Your task to perform on an android device: change timer sound Image 0: 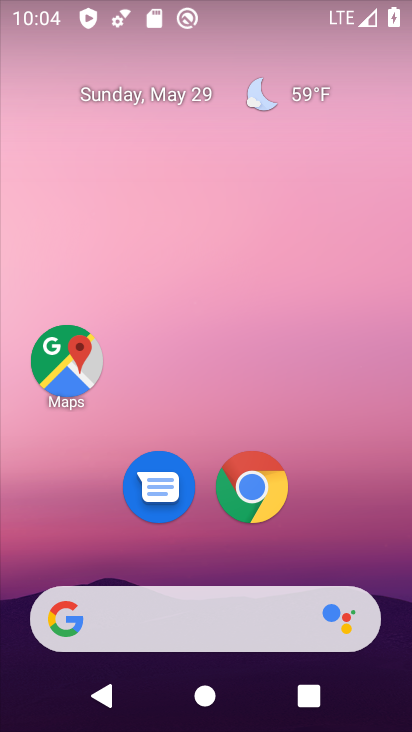
Step 0: drag from (392, 630) to (377, 159)
Your task to perform on an android device: change timer sound Image 1: 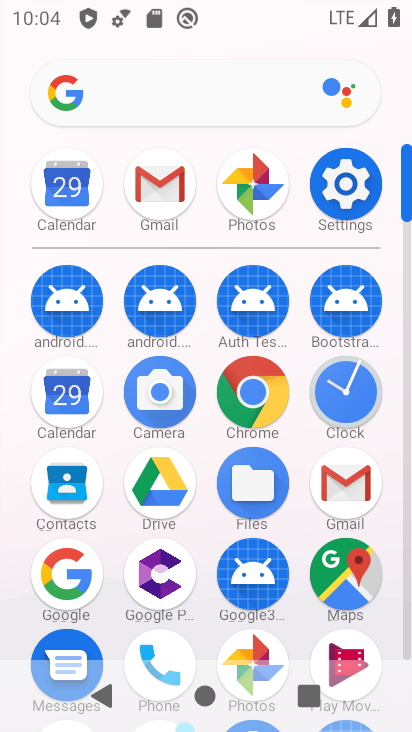
Step 1: click (319, 396)
Your task to perform on an android device: change timer sound Image 2: 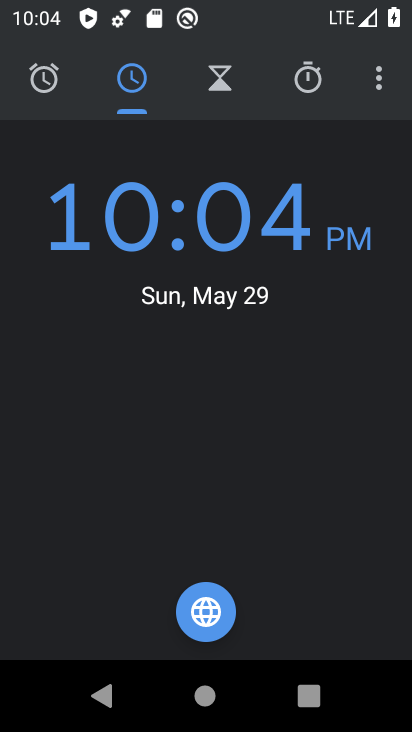
Step 2: click (380, 84)
Your task to perform on an android device: change timer sound Image 3: 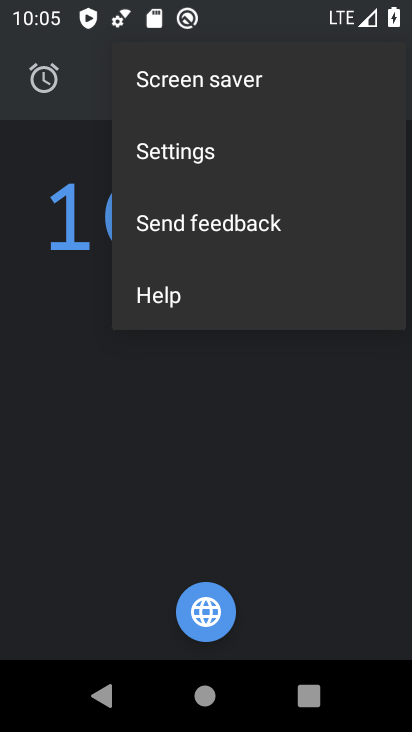
Step 3: click (177, 165)
Your task to perform on an android device: change timer sound Image 4: 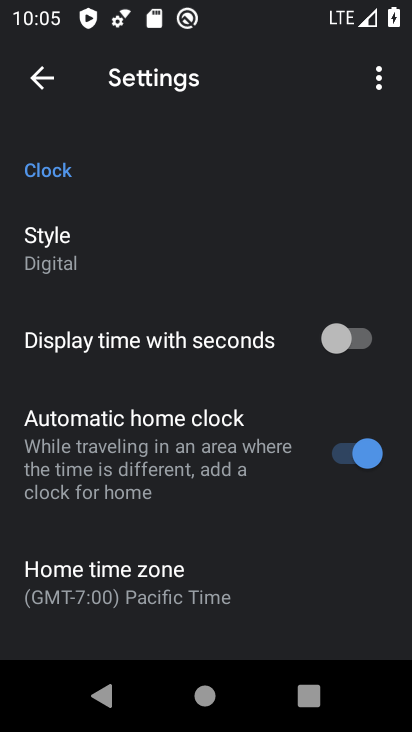
Step 4: drag from (247, 584) to (244, 215)
Your task to perform on an android device: change timer sound Image 5: 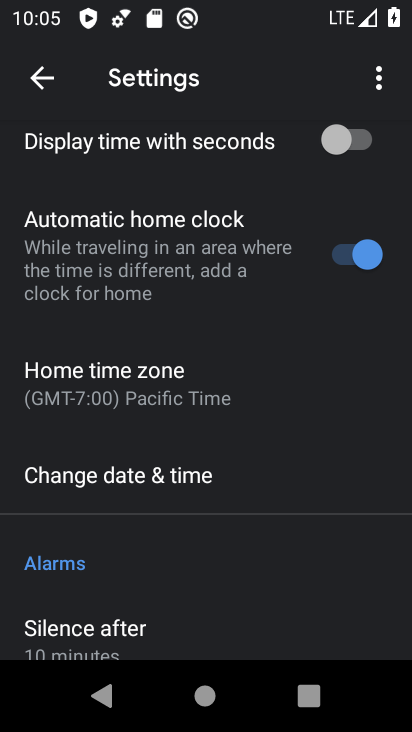
Step 5: drag from (246, 617) to (233, 291)
Your task to perform on an android device: change timer sound Image 6: 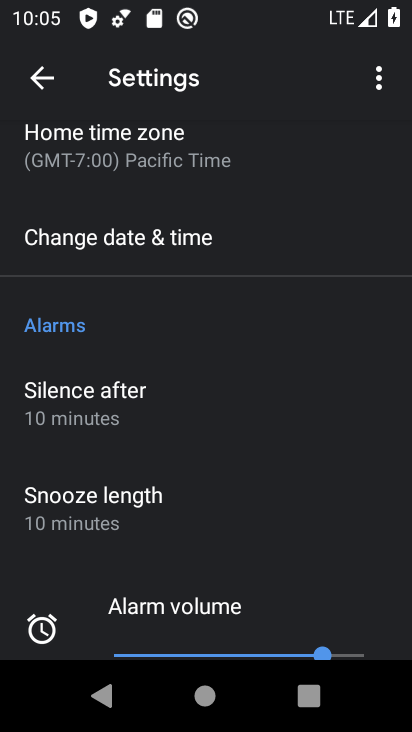
Step 6: drag from (195, 570) to (227, 236)
Your task to perform on an android device: change timer sound Image 7: 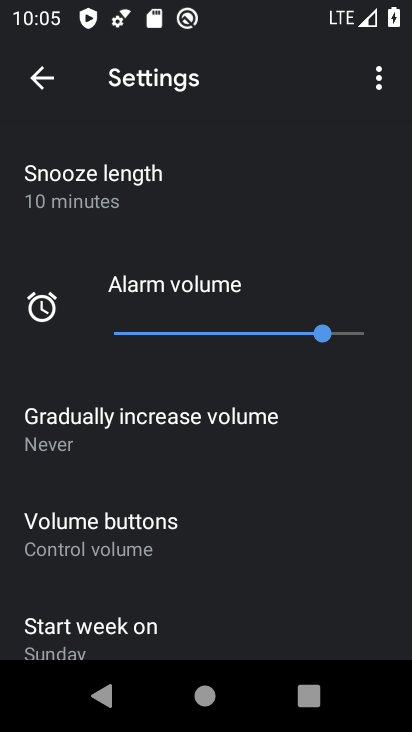
Step 7: drag from (188, 599) to (187, 354)
Your task to perform on an android device: change timer sound Image 8: 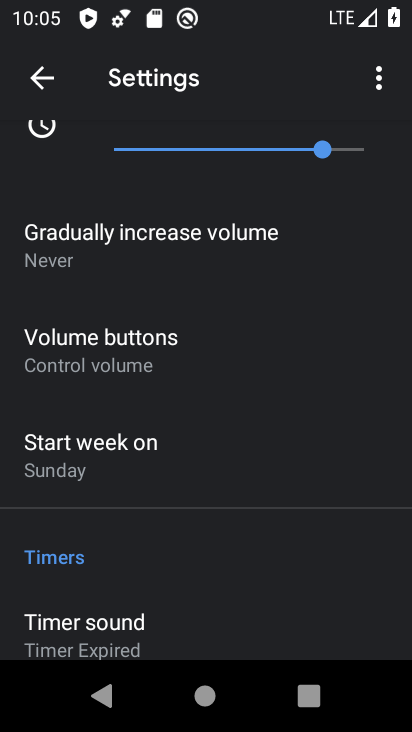
Step 8: click (102, 631)
Your task to perform on an android device: change timer sound Image 9: 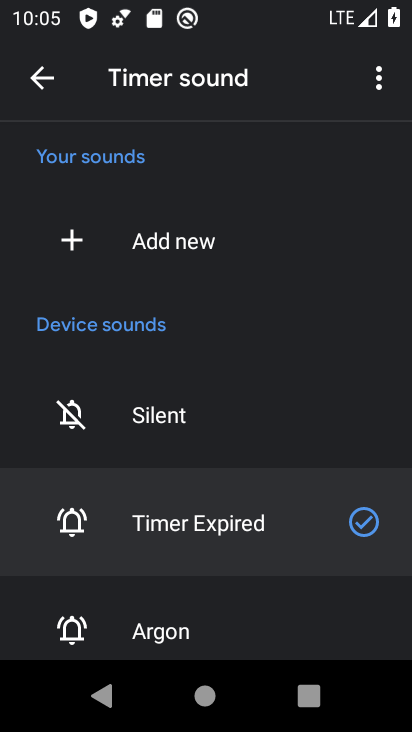
Step 9: click (156, 627)
Your task to perform on an android device: change timer sound Image 10: 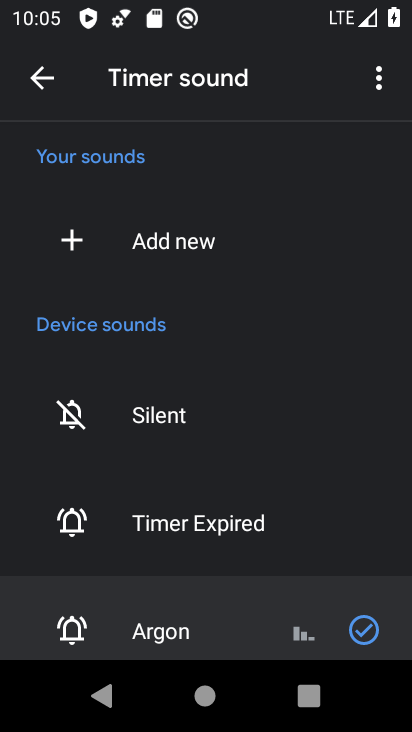
Step 10: task complete